Your task to perform on an android device: turn on showing notifications on the lock screen Image 0: 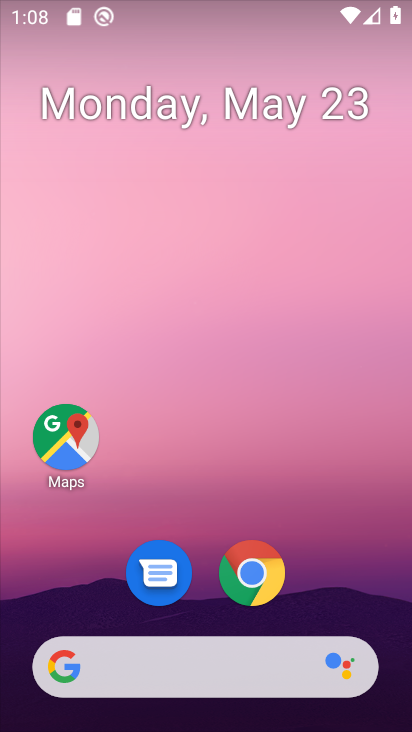
Step 0: drag from (371, 578) to (299, 48)
Your task to perform on an android device: turn on showing notifications on the lock screen Image 1: 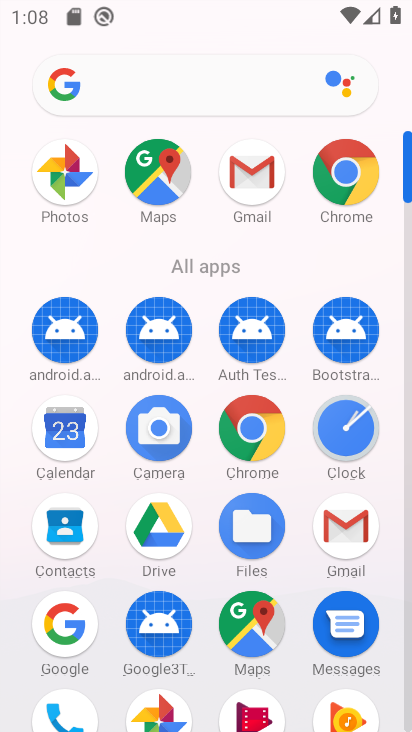
Step 1: drag from (119, 611) to (124, 205)
Your task to perform on an android device: turn on showing notifications on the lock screen Image 2: 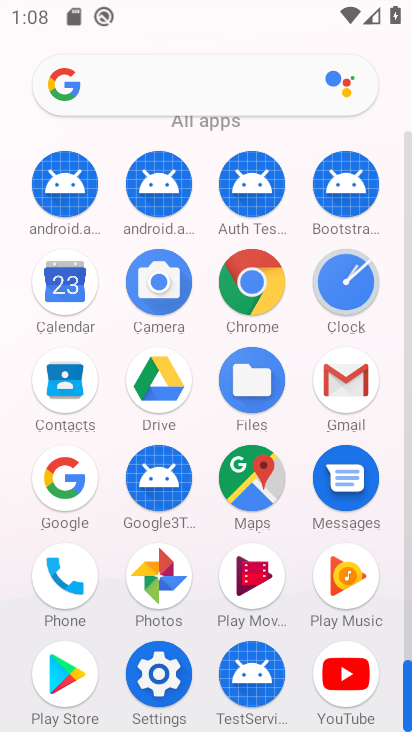
Step 2: click (170, 691)
Your task to perform on an android device: turn on showing notifications on the lock screen Image 3: 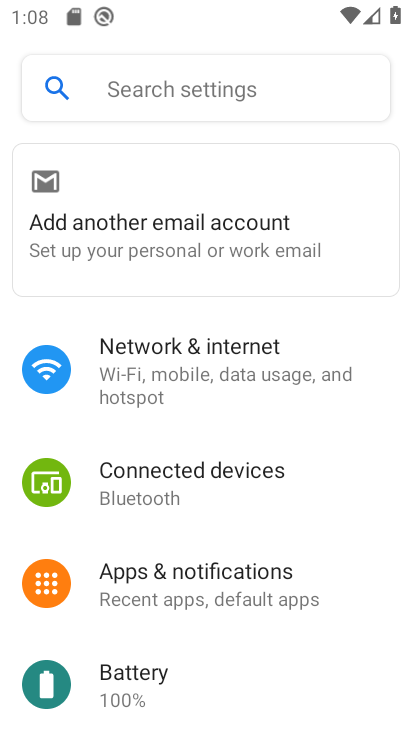
Step 3: click (206, 580)
Your task to perform on an android device: turn on showing notifications on the lock screen Image 4: 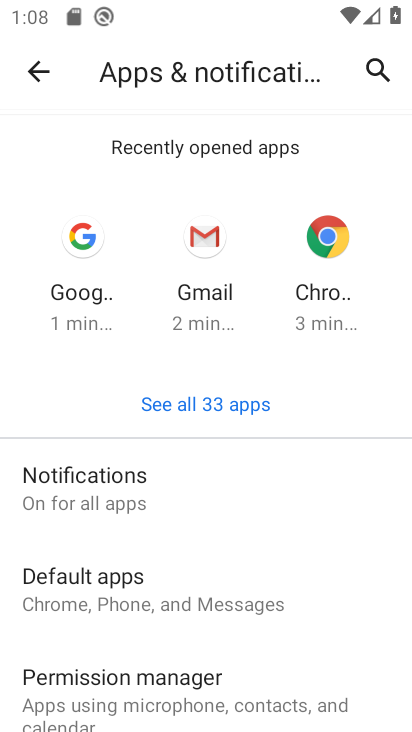
Step 4: click (149, 495)
Your task to perform on an android device: turn on showing notifications on the lock screen Image 5: 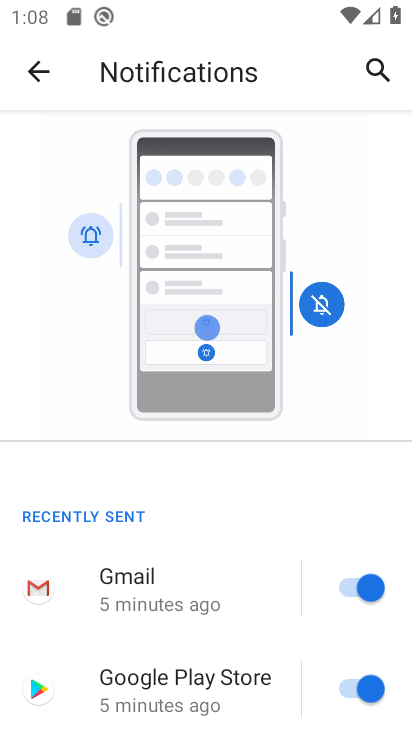
Step 5: drag from (230, 621) to (162, 155)
Your task to perform on an android device: turn on showing notifications on the lock screen Image 6: 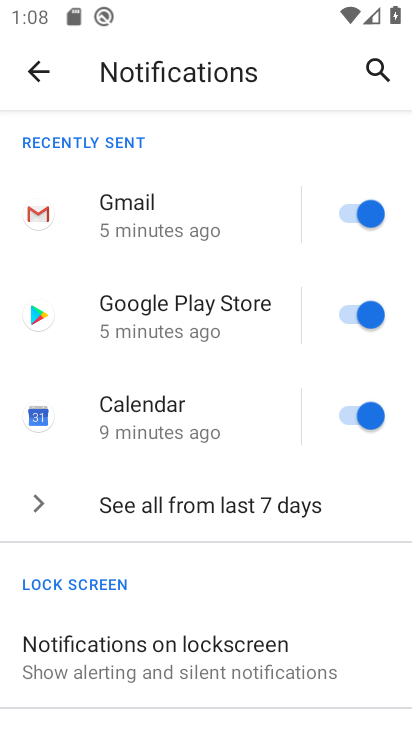
Step 6: click (214, 652)
Your task to perform on an android device: turn on showing notifications on the lock screen Image 7: 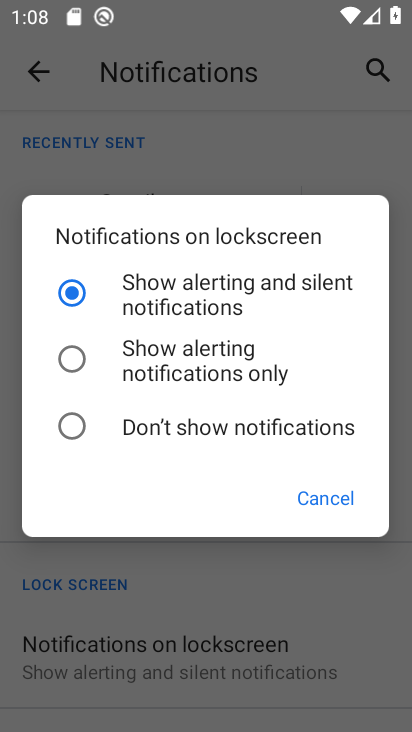
Step 7: click (211, 302)
Your task to perform on an android device: turn on showing notifications on the lock screen Image 8: 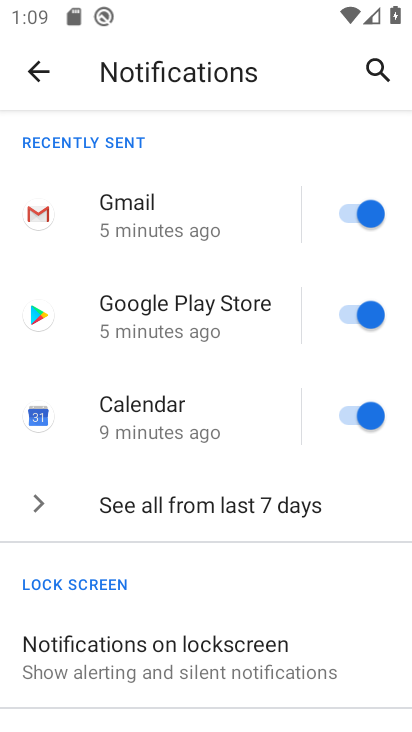
Step 8: task complete